Your task to perform on an android device: What's on my calendar tomorrow? Image 0: 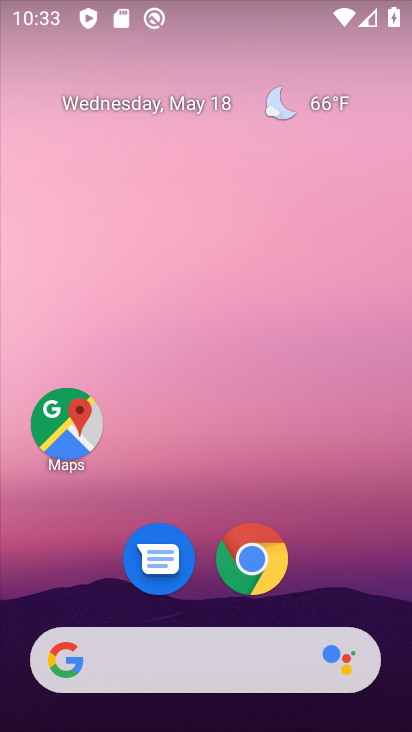
Step 0: drag from (138, 606) to (225, 198)
Your task to perform on an android device: What's on my calendar tomorrow? Image 1: 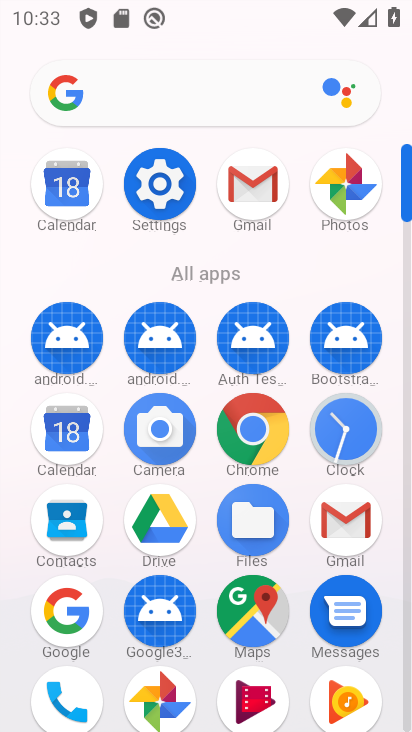
Step 1: click (66, 448)
Your task to perform on an android device: What's on my calendar tomorrow? Image 2: 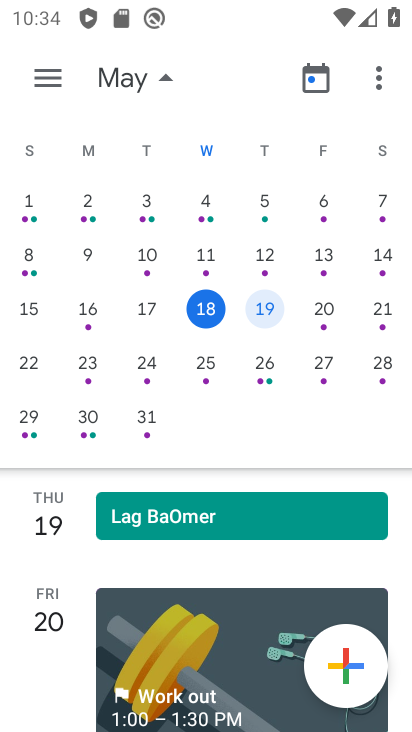
Step 2: click (257, 302)
Your task to perform on an android device: What's on my calendar tomorrow? Image 3: 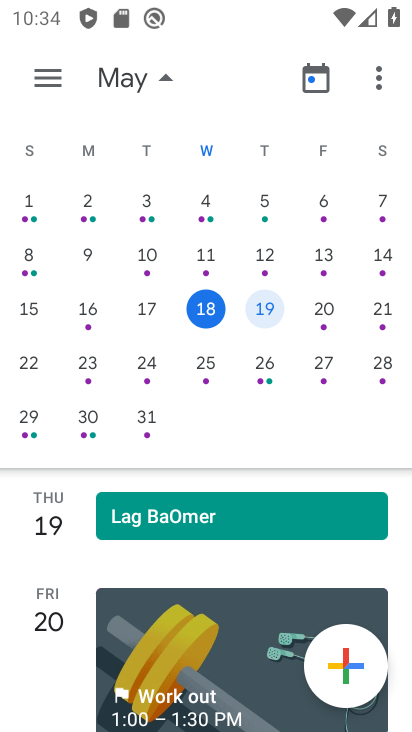
Step 3: task complete